Your task to perform on an android device: search for starred emails in the gmail app Image 0: 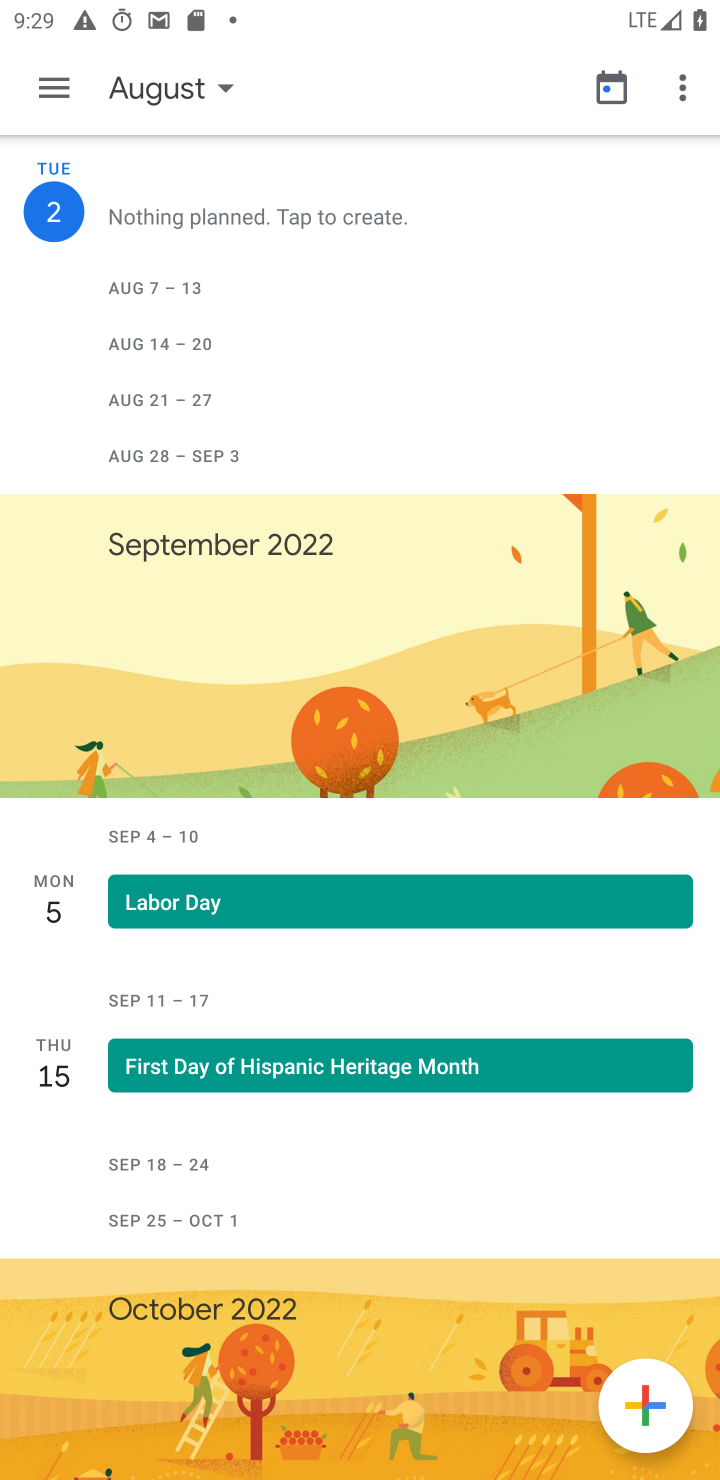
Step 0: click (428, 242)
Your task to perform on an android device: search for starred emails in the gmail app Image 1: 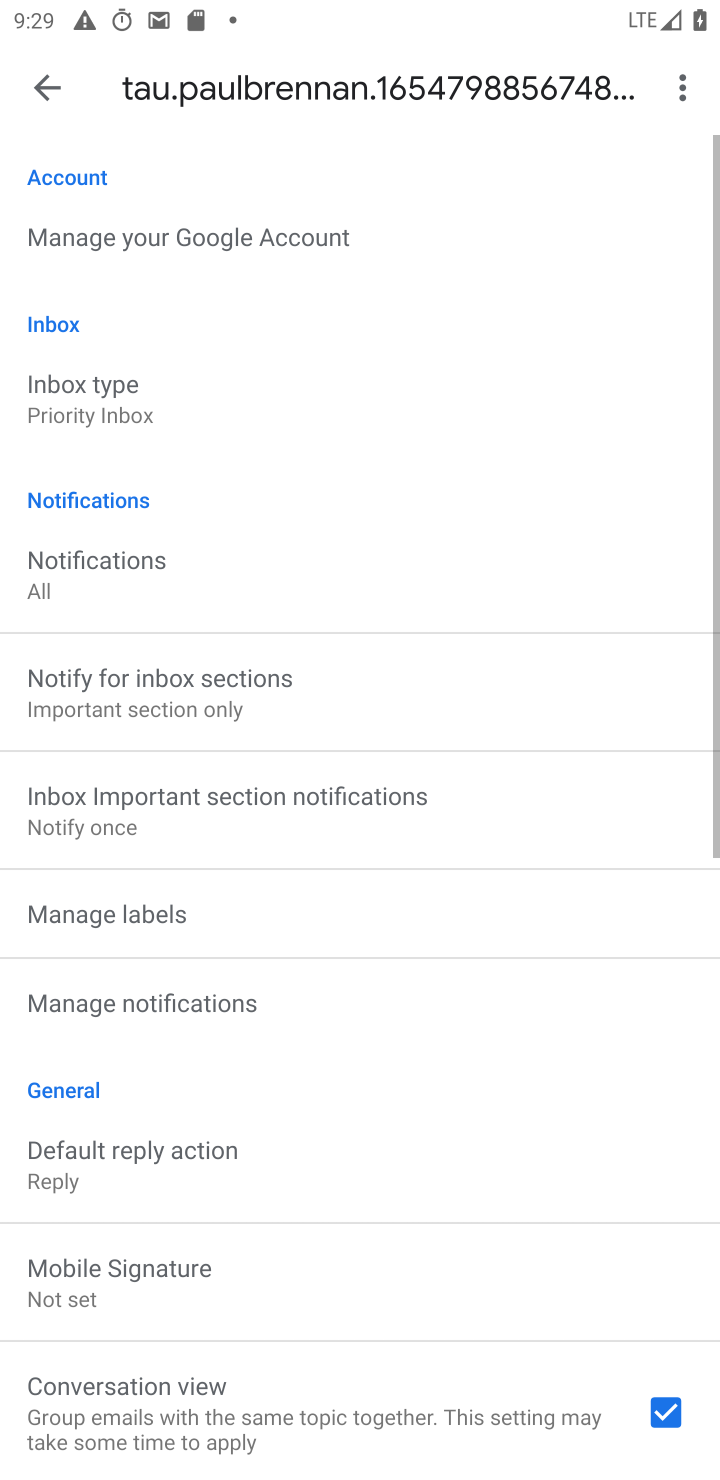
Step 1: click (48, 88)
Your task to perform on an android device: search for starred emails in the gmail app Image 2: 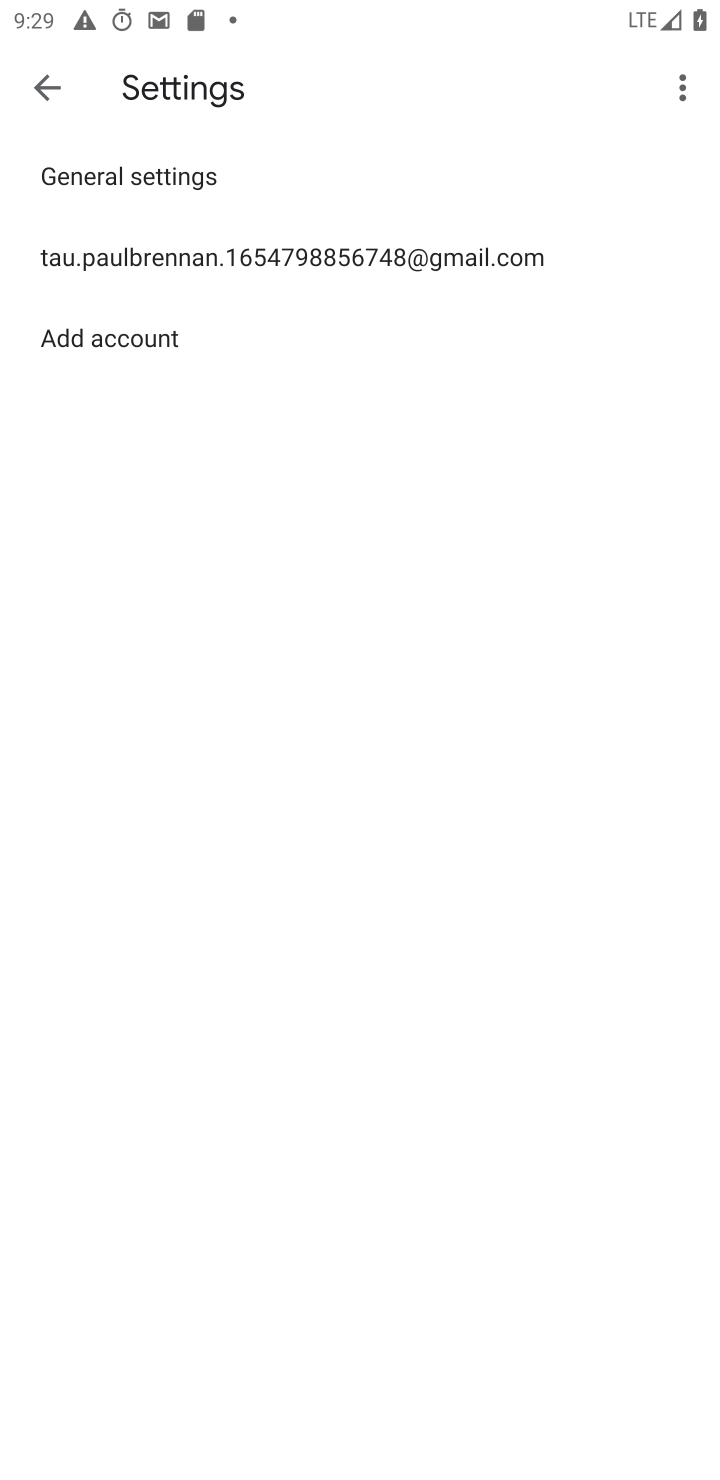
Step 2: click (52, 86)
Your task to perform on an android device: search for starred emails in the gmail app Image 3: 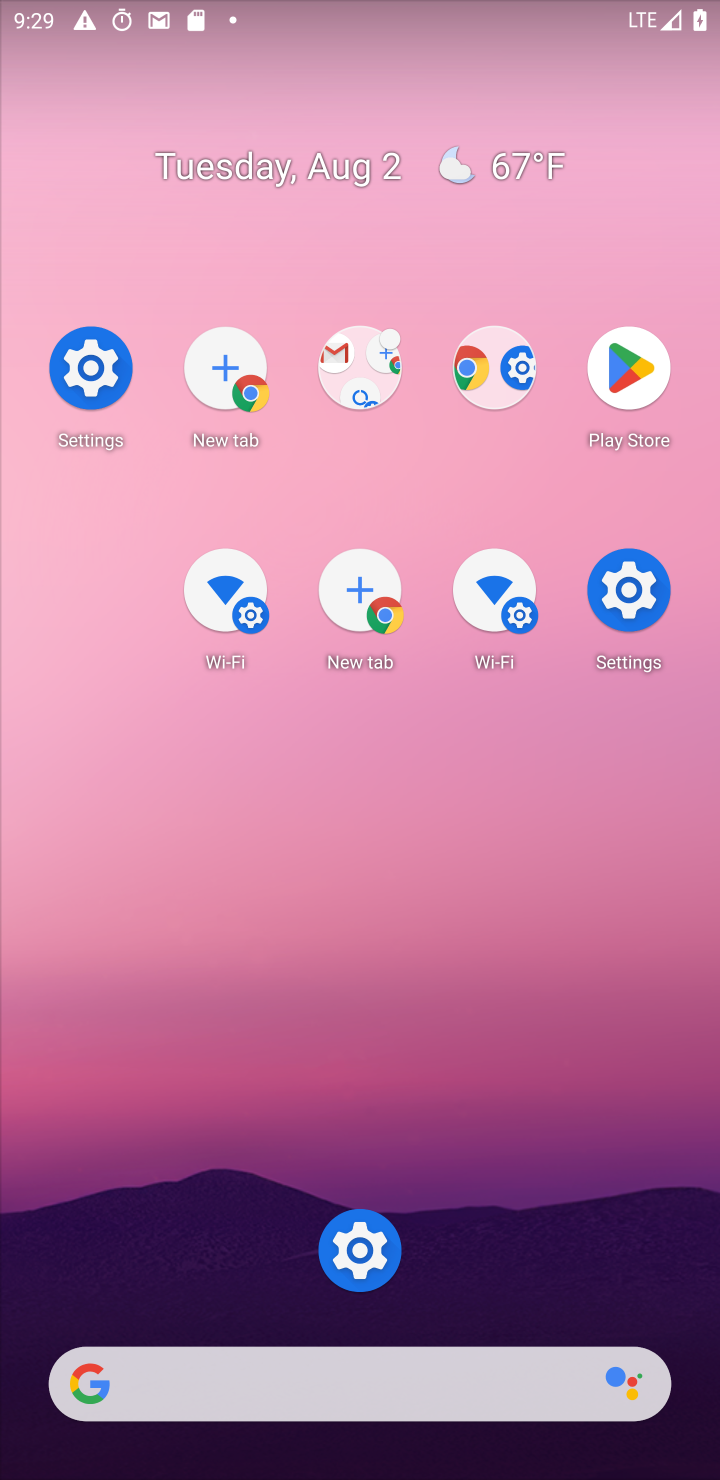
Step 3: drag from (338, 1066) to (538, 297)
Your task to perform on an android device: search for starred emails in the gmail app Image 4: 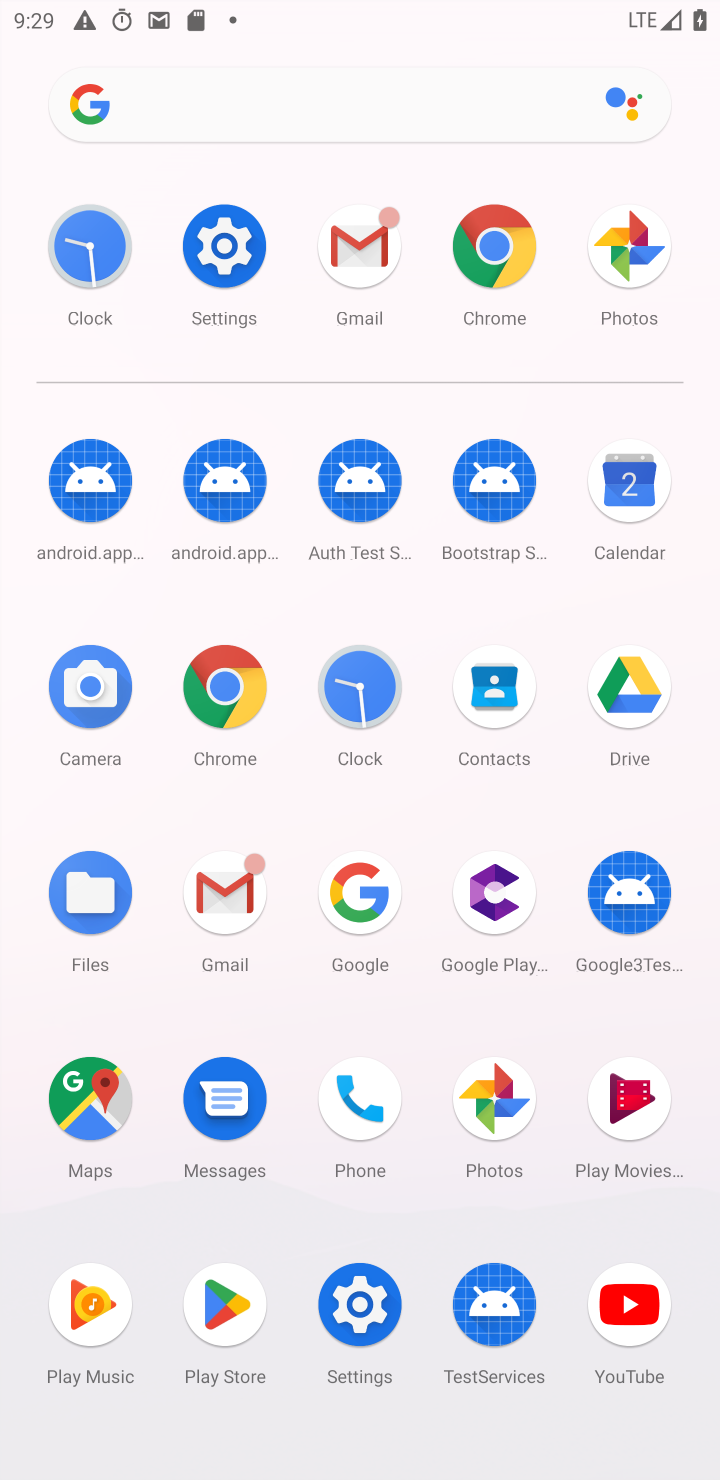
Step 4: click (363, 249)
Your task to perform on an android device: search for starred emails in the gmail app Image 5: 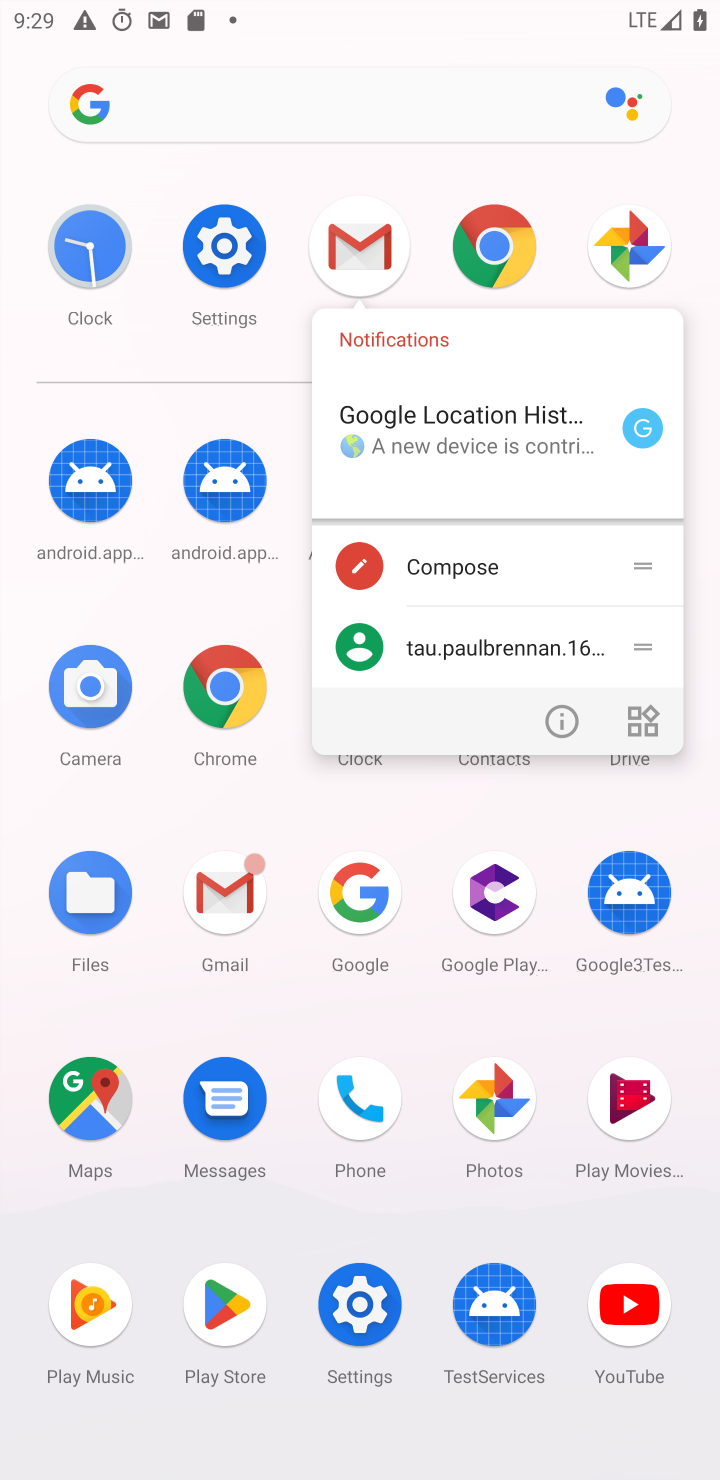
Step 5: click (363, 248)
Your task to perform on an android device: search for starred emails in the gmail app Image 6: 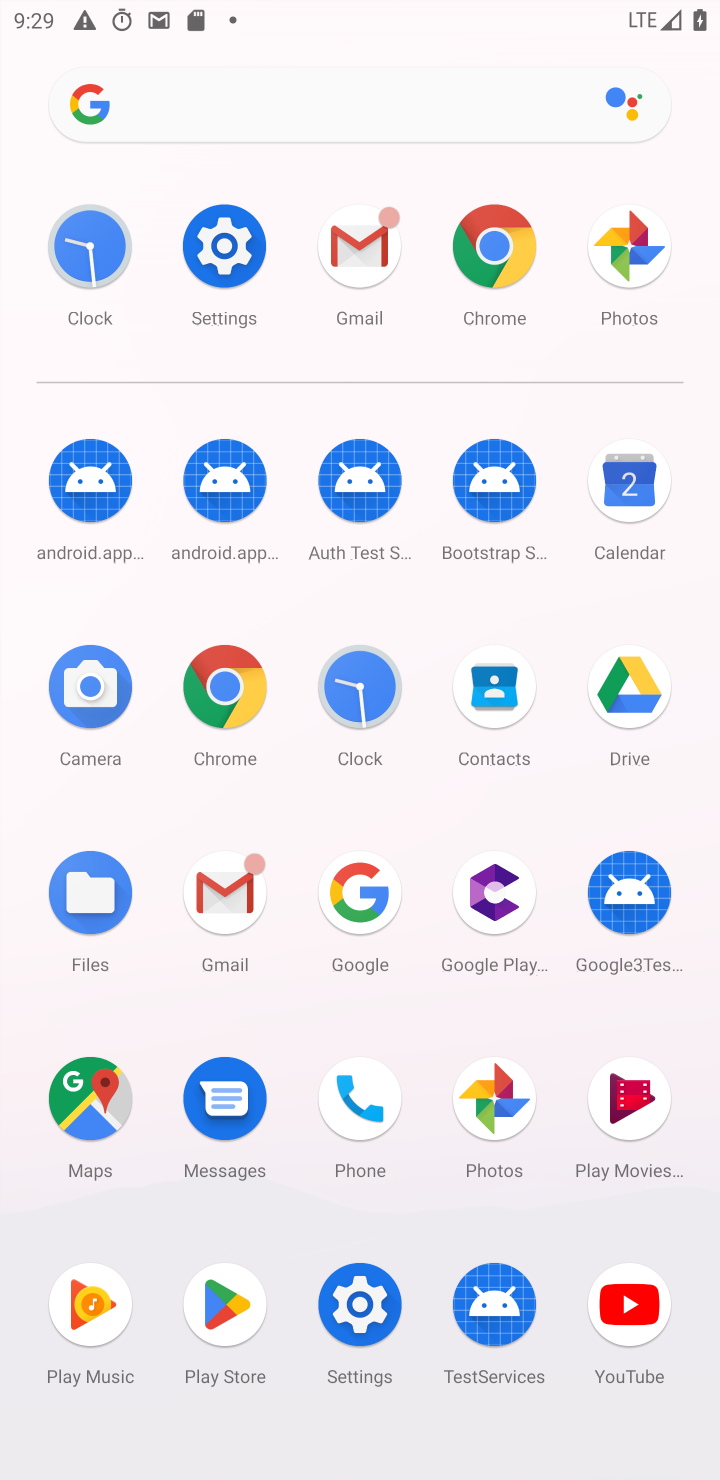
Step 6: click (358, 252)
Your task to perform on an android device: search for starred emails in the gmail app Image 7: 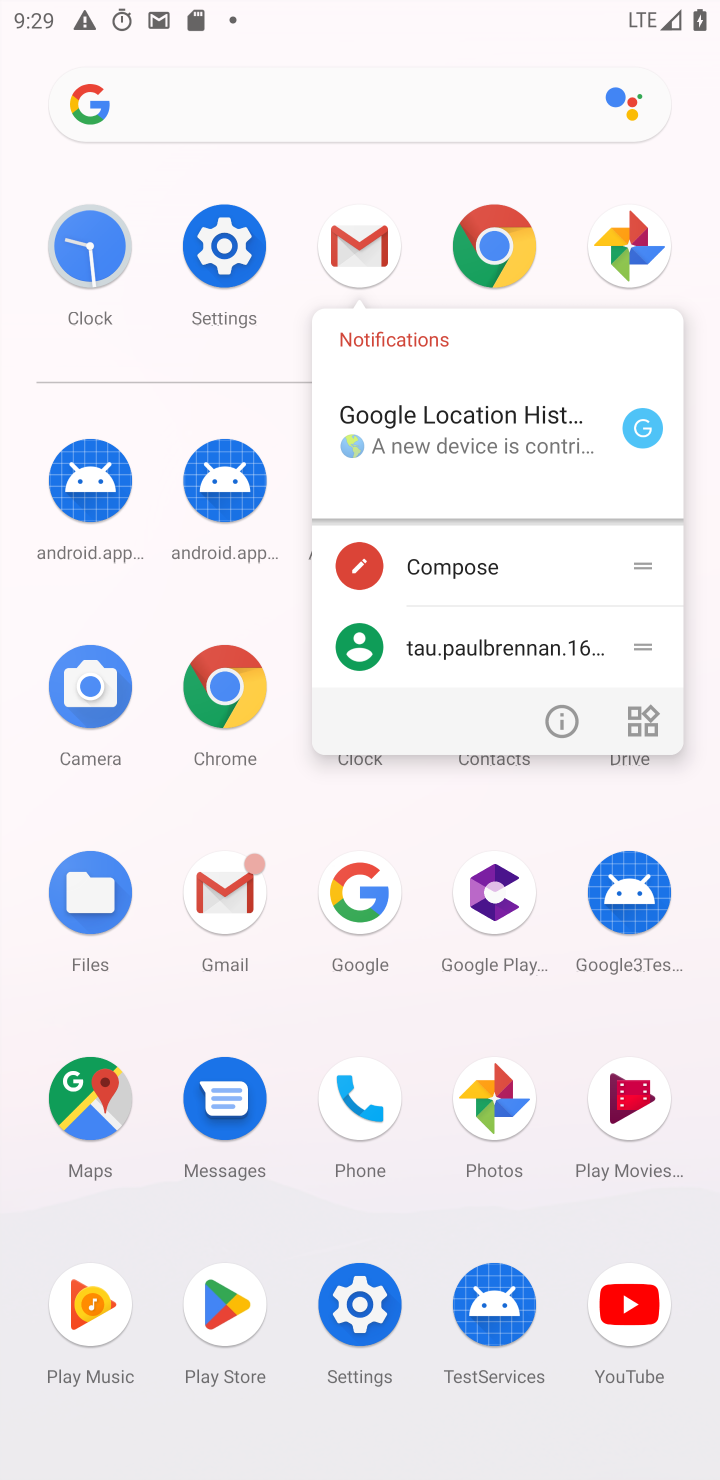
Step 7: click (358, 252)
Your task to perform on an android device: search for starred emails in the gmail app Image 8: 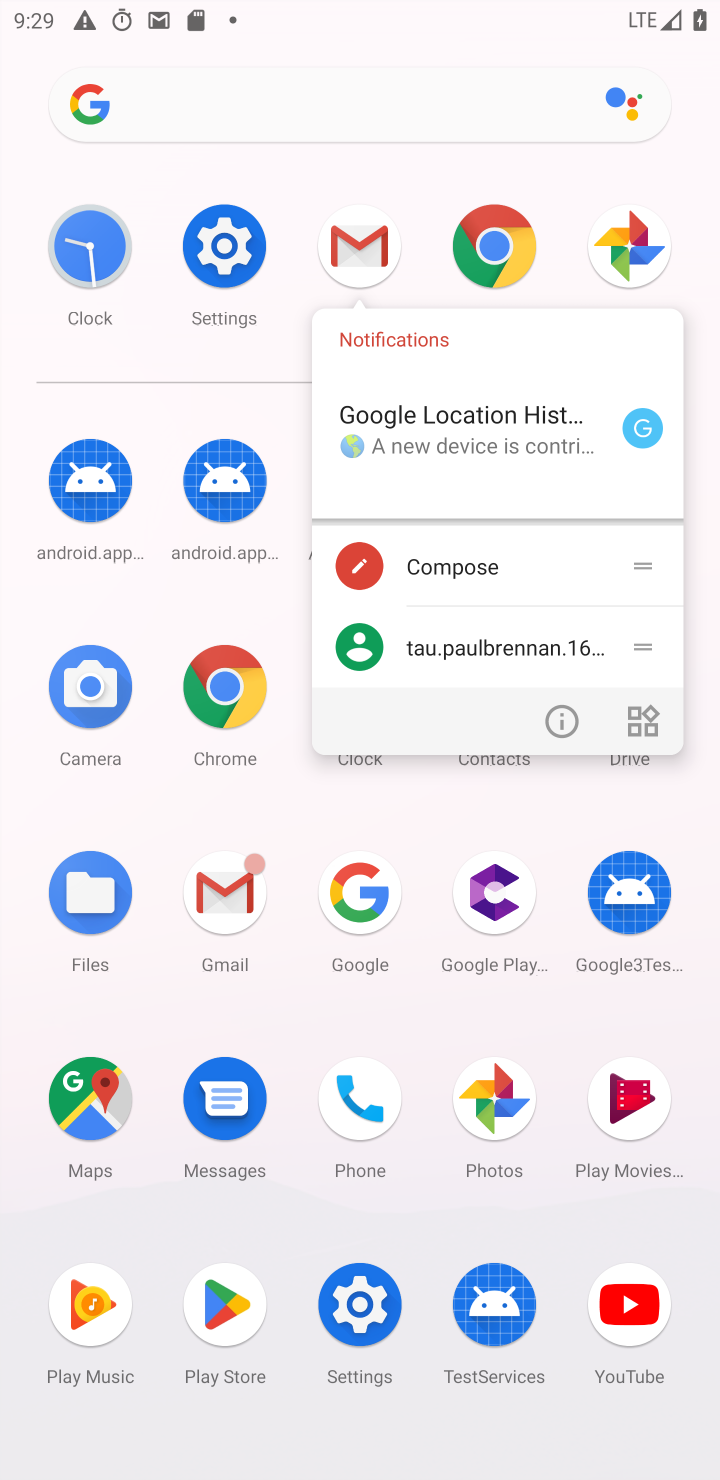
Step 8: click (480, 647)
Your task to perform on an android device: search for starred emails in the gmail app Image 9: 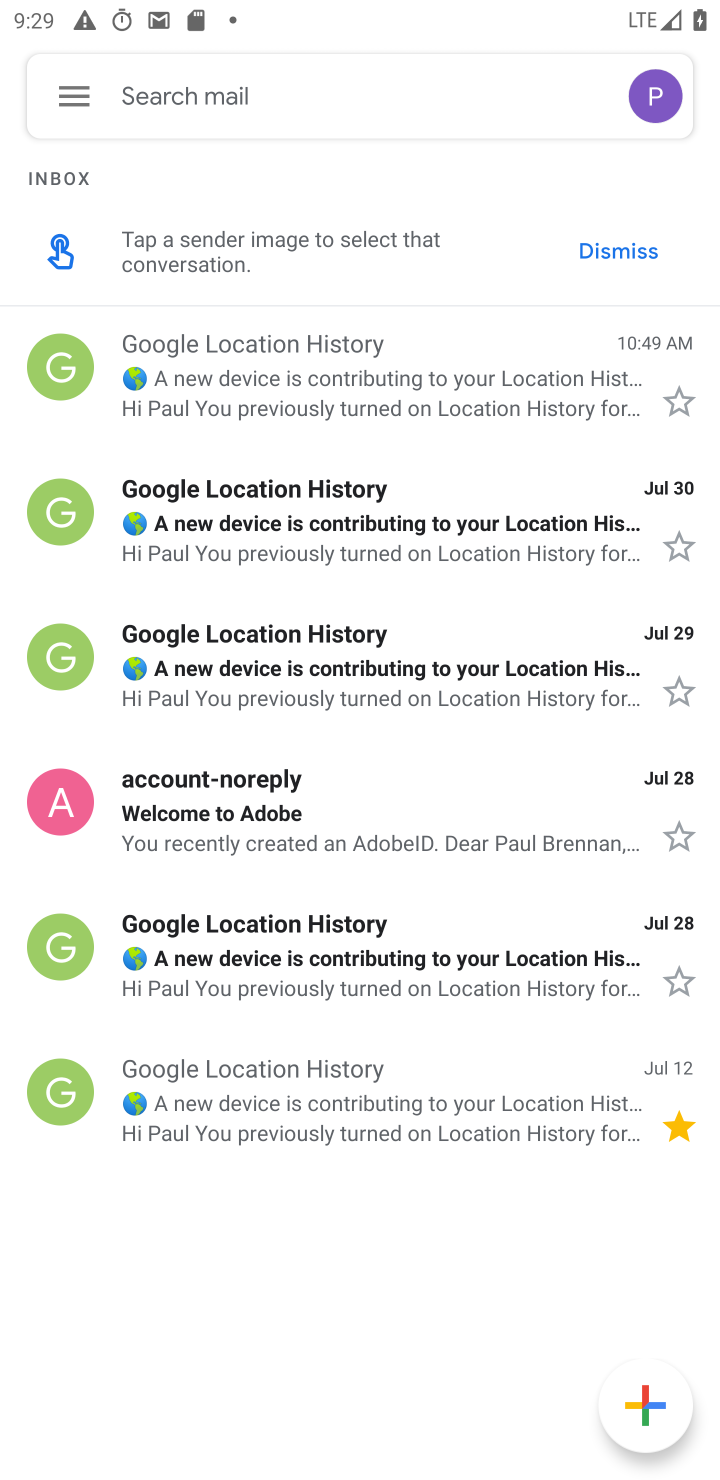
Step 9: click (320, 1118)
Your task to perform on an android device: search for starred emails in the gmail app Image 10: 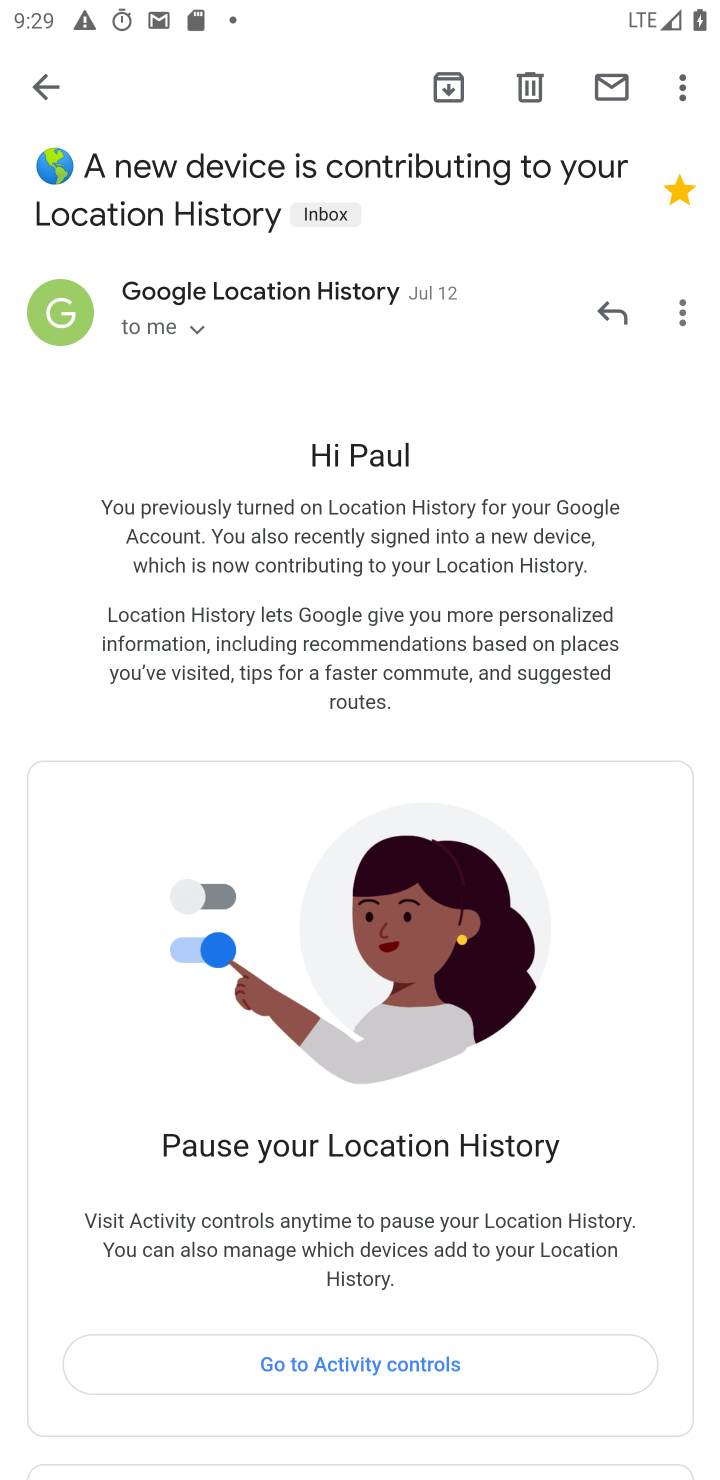
Step 10: task complete